Your task to perform on an android device: toggle notifications settings in the gmail app Image 0: 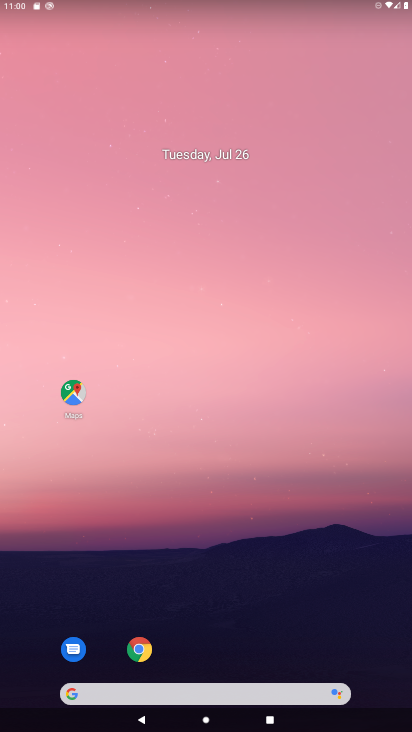
Step 0: drag from (222, 690) to (163, 194)
Your task to perform on an android device: toggle notifications settings in the gmail app Image 1: 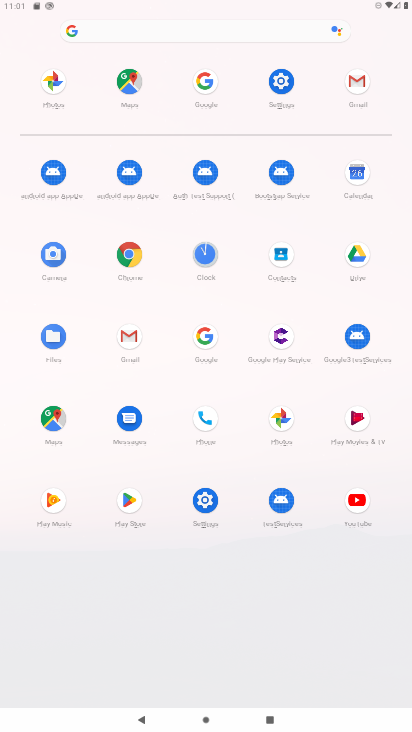
Step 1: click (352, 83)
Your task to perform on an android device: toggle notifications settings in the gmail app Image 2: 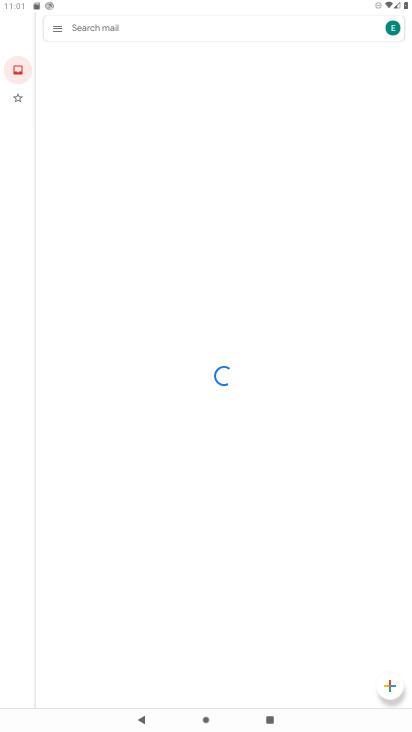
Step 2: click (58, 36)
Your task to perform on an android device: toggle notifications settings in the gmail app Image 3: 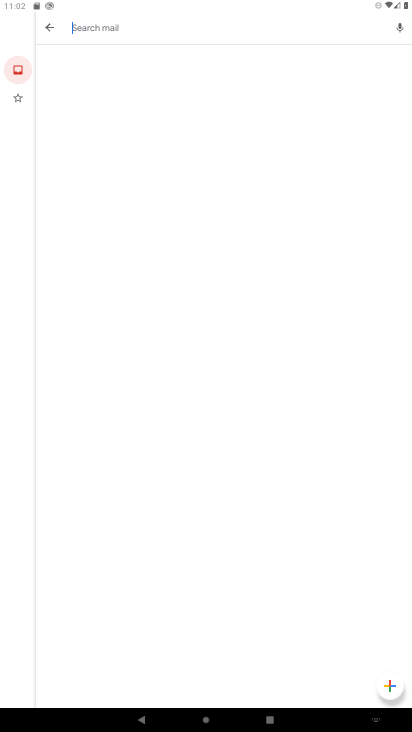
Step 3: click (41, 22)
Your task to perform on an android device: toggle notifications settings in the gmail app Image 4: 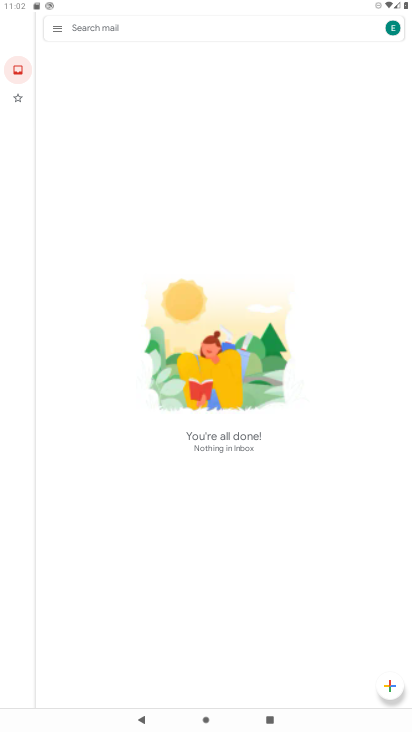
Step 4: click (59, 30)
Your task to perform on an android device: toggle notifications settings in the gmail app Image 5: 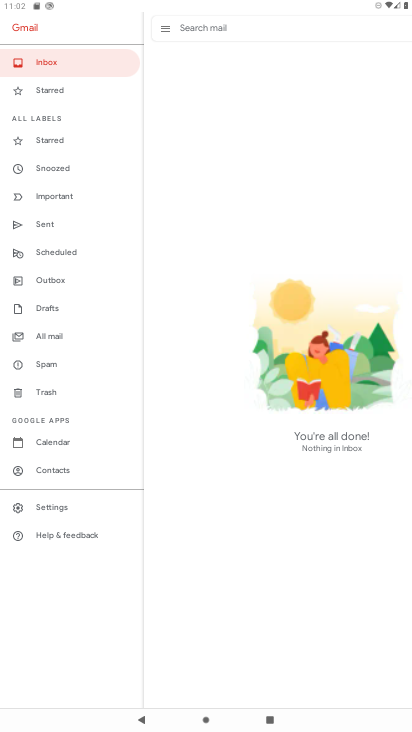
Step 5: click (73, 509)
Your task to perform on an android device: toggle notifications settings in the gmail app Image 6: 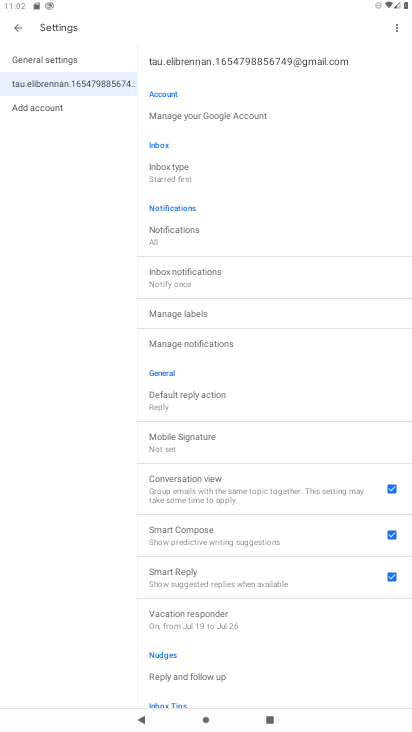
Step 6: click (192, 343)
Your task to perform on an android device: toggle notifications settings in the gmail app Image 7: 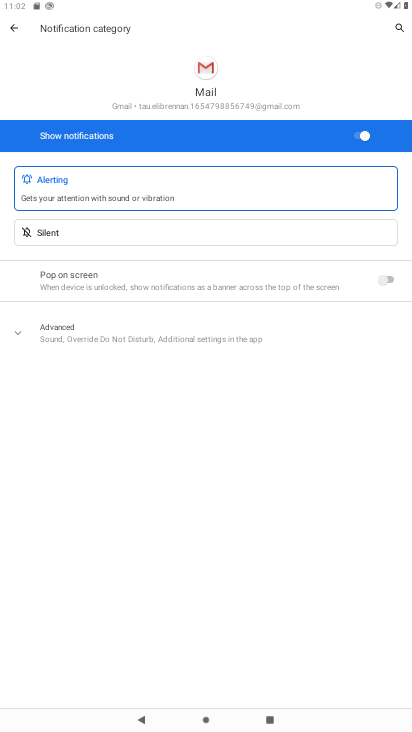
Step 7: click (360, 133)
Your task to perform on an android device: toggle notifications settings in the gmail app Image 8: 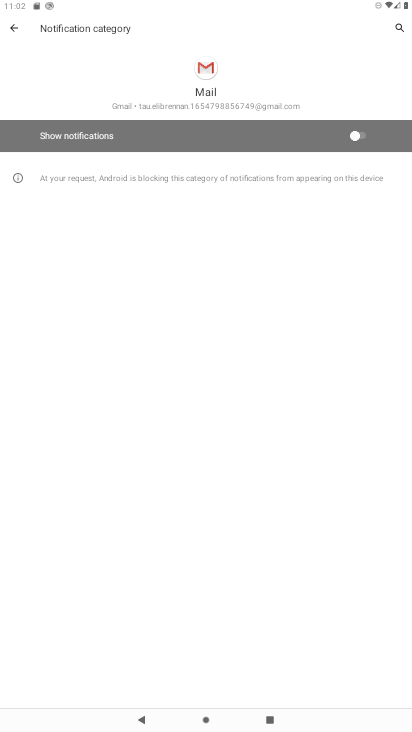
Step 8: task complete